Your task to perform on an android device: Open calendar and show me the first week of next month Image 0: 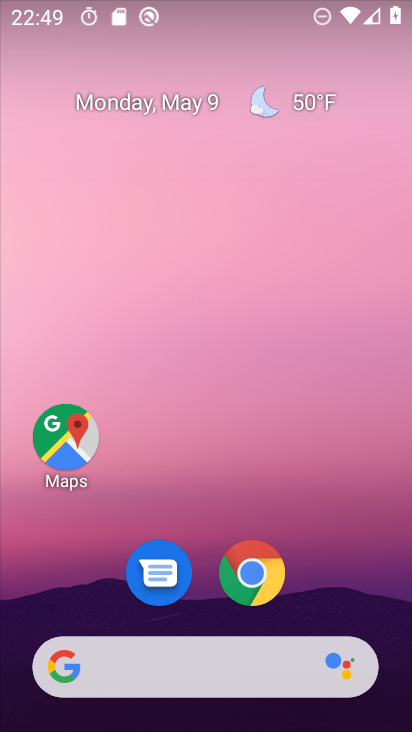
Step 0: drag from (321, 580) to (213, 165)
Your task to perform on an android device: Open calendar and show me the first week of next month Image 1: 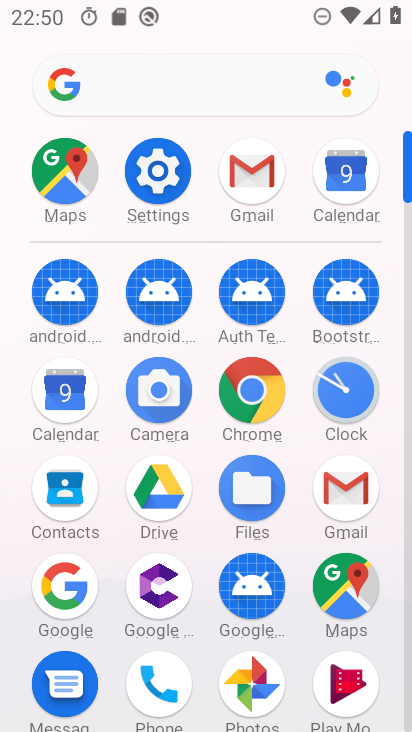
Step 1: click (67, 376)
Your task to perform on an android device: Open calendar and show me the first week of next month Image 2: 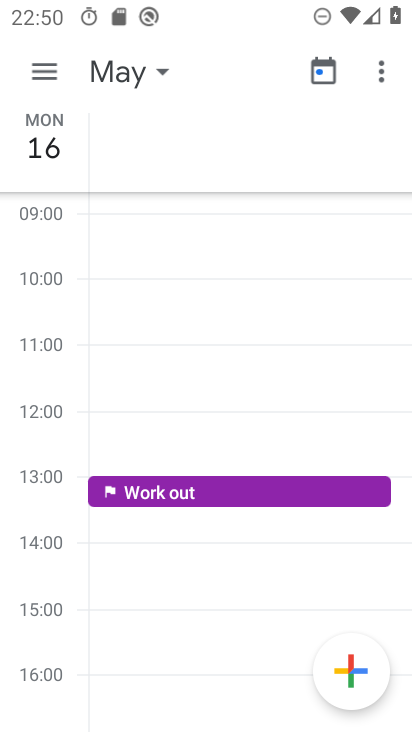
Step 2: click (124, 58)
Your task to perform on an android device: Open calendar and show me the first week of next month Image 3: 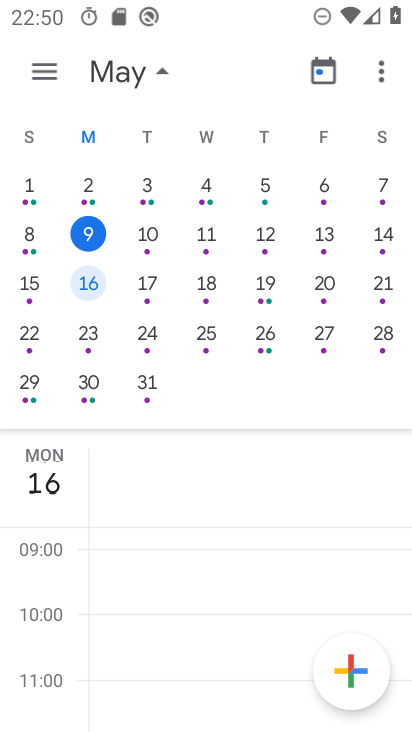
Step 3: drag from (315, 281) to (1, 281)
Your task to perform on an android device: Open calendar and show me the first week of next month Image 4: 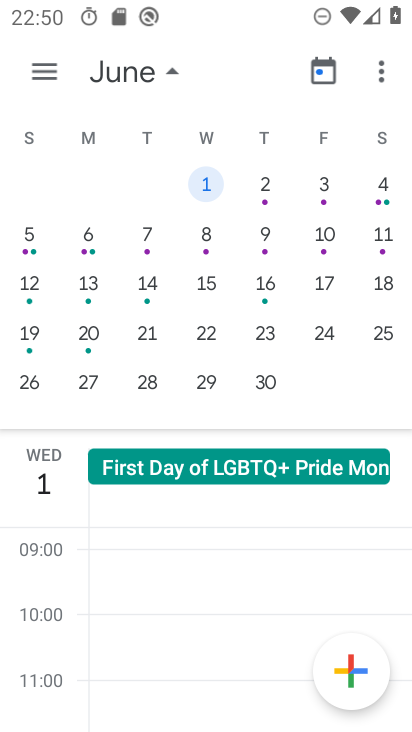
Step 4: click (267, 184)
Your task to perform on an android device: Open calendar and show me the first week of next month Image 5: 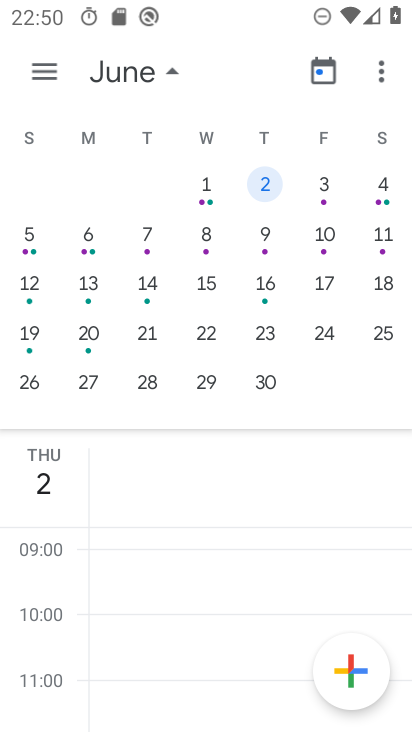
Step 5: task complete